Your task to perform on an android device: change the clock display to digital Image 0: 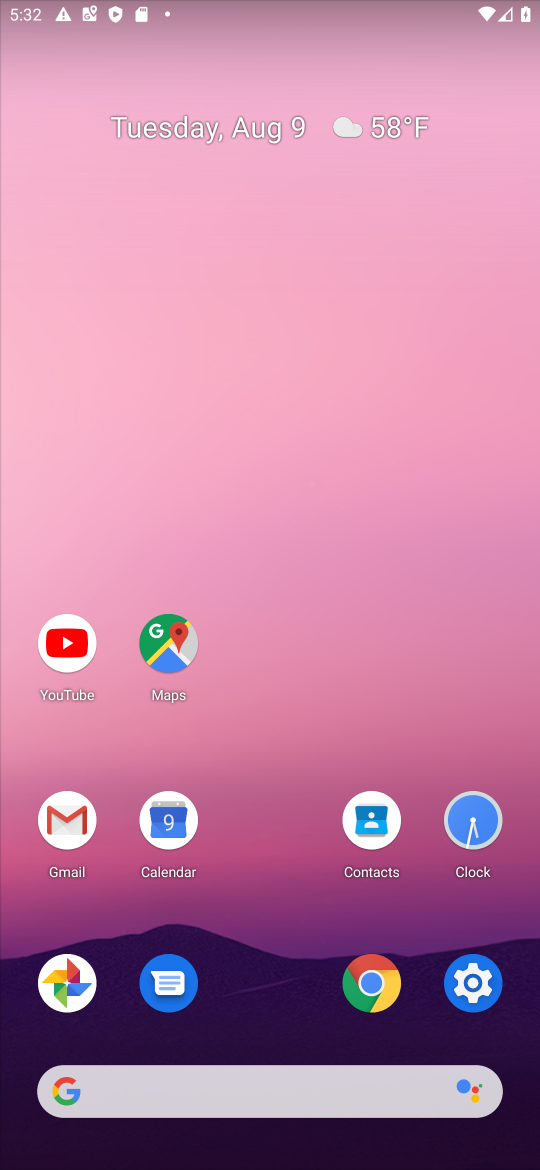
Step 0: click (466, 823)
Your task to perform on an android device: change the clock display to digital Image 1: 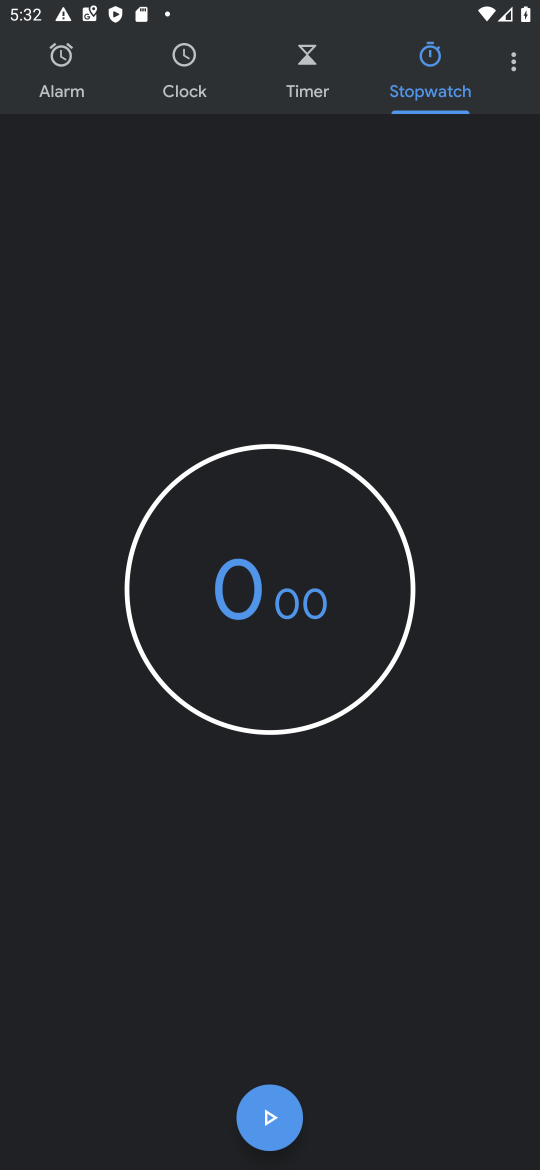
Step 1: click (466, 823)
Your task to perform on an android device: change the clock display to digital Image 2: 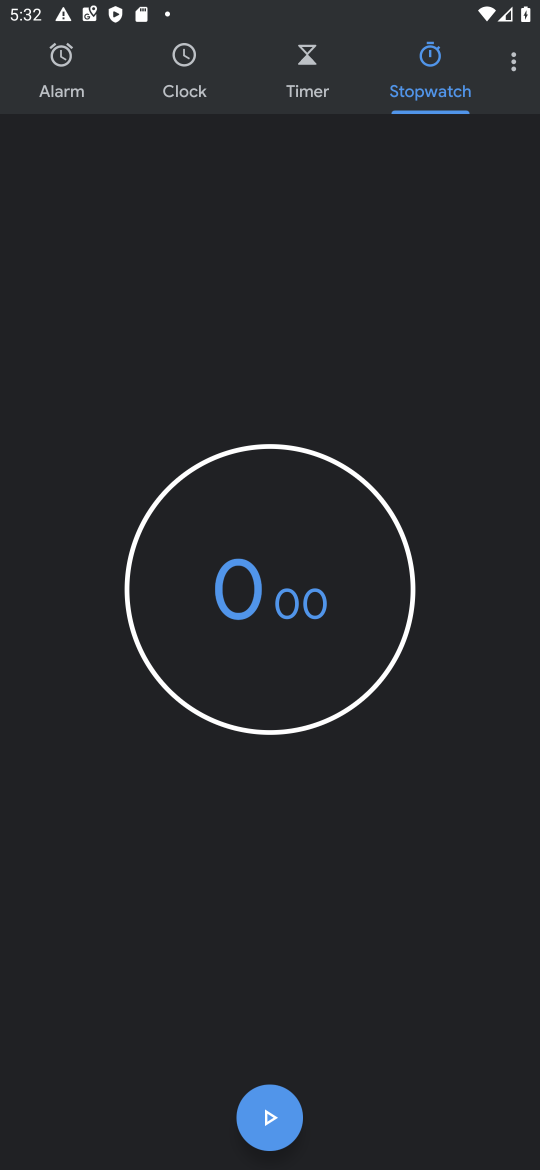
Step 2: click (506, 63)
Your task to perform on an android device: change the clock display to digital Image 3: 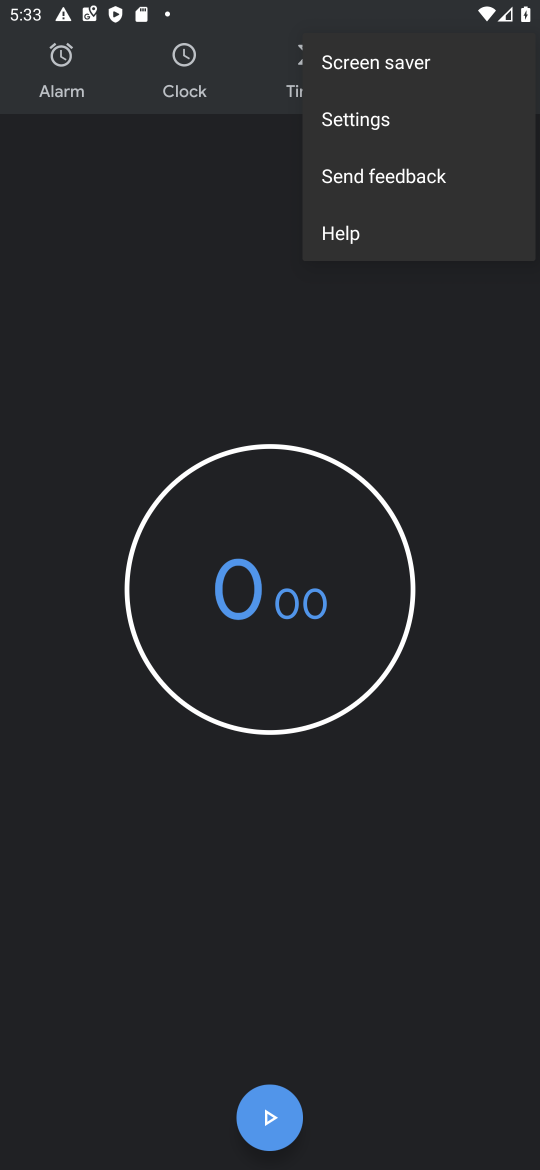
Step 3: click (370, 123)
Your task to perform on an android device: change the clock display to digital Image 4: 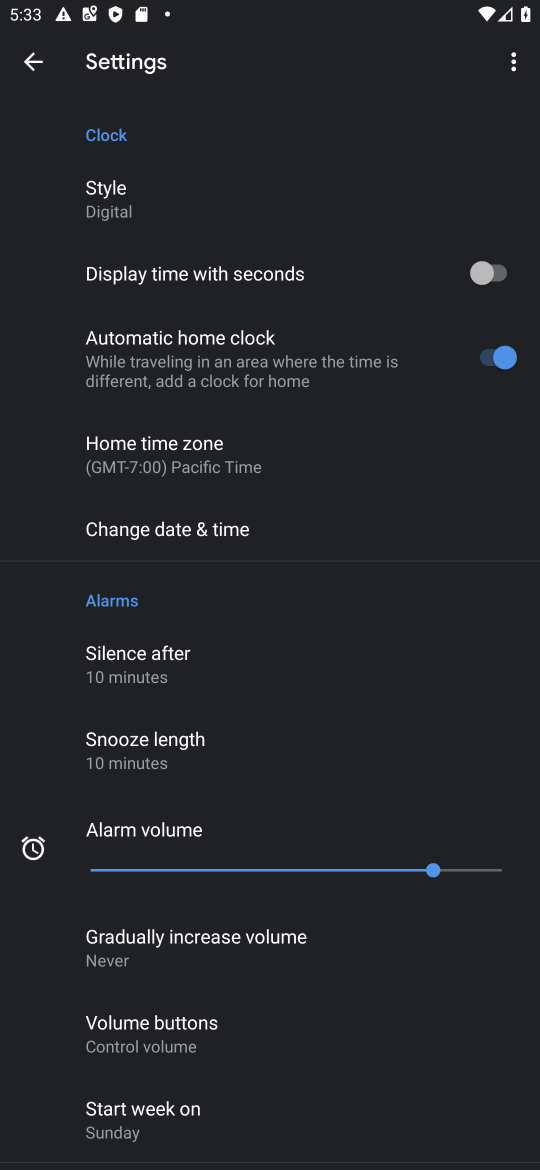
Step 4: click (115, 184)
Your task to perform on an android device: change the clock display to digital Image 5: 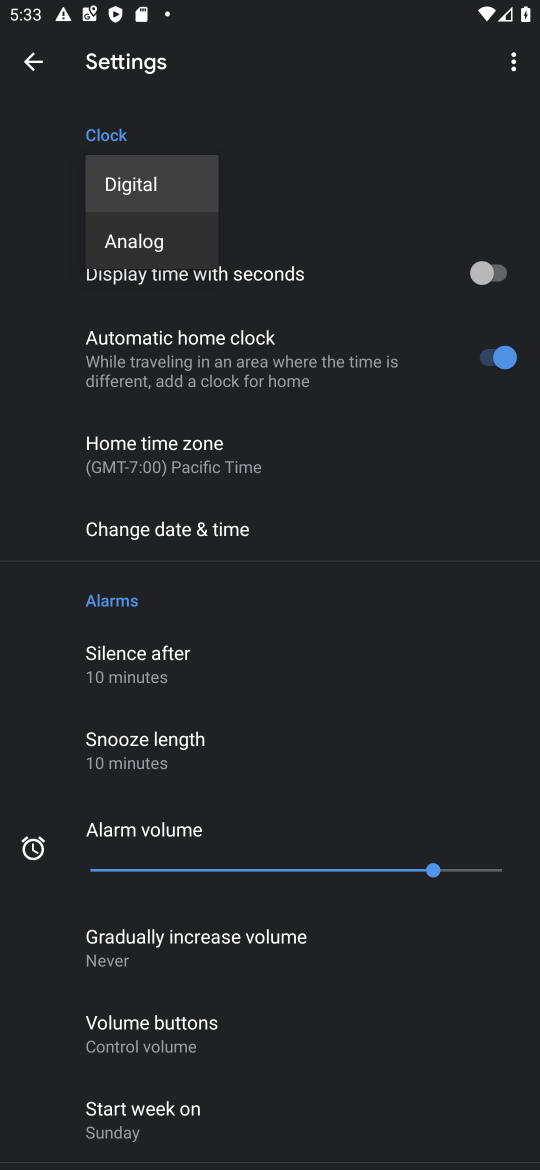
Step 5: click (136, 184)
Your task to perform on an android device: change the clock display to digital Image 6: 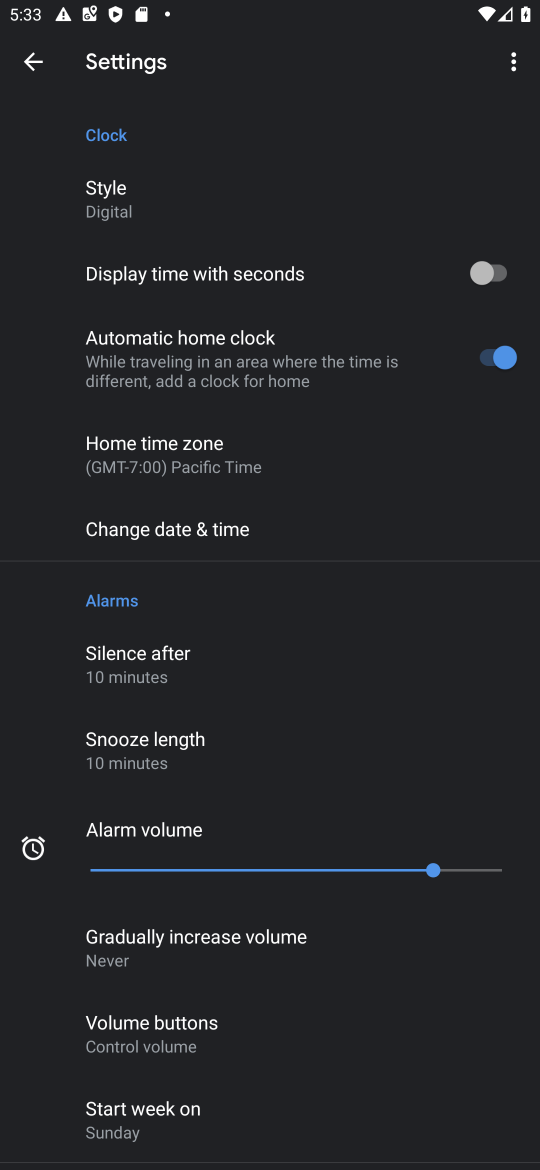
Step 6: task complete